Your task to perform on an android device: open app "Adobe Express: Graphic Design" (install if not already installed) and enter user name: "deliveries@gmail.com" and password: "regimentation" Image 0: 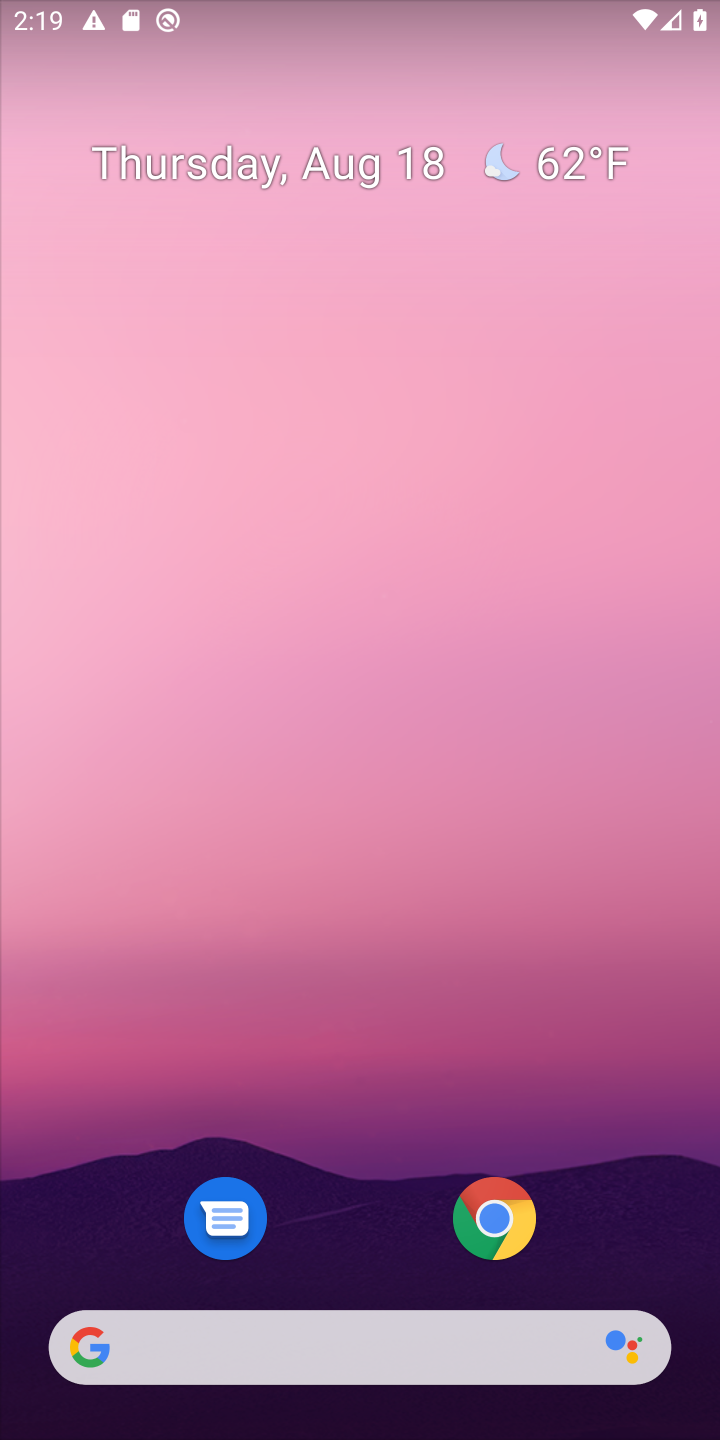
Step 0: drag from (416, 498) to (416, 333)
Your task to perform on an android device: open app "Adobe Express: Graphic Design" (install if not already installed) and enter user name: "deliveries@gmail.com" and password: "regimentation" Image 1: 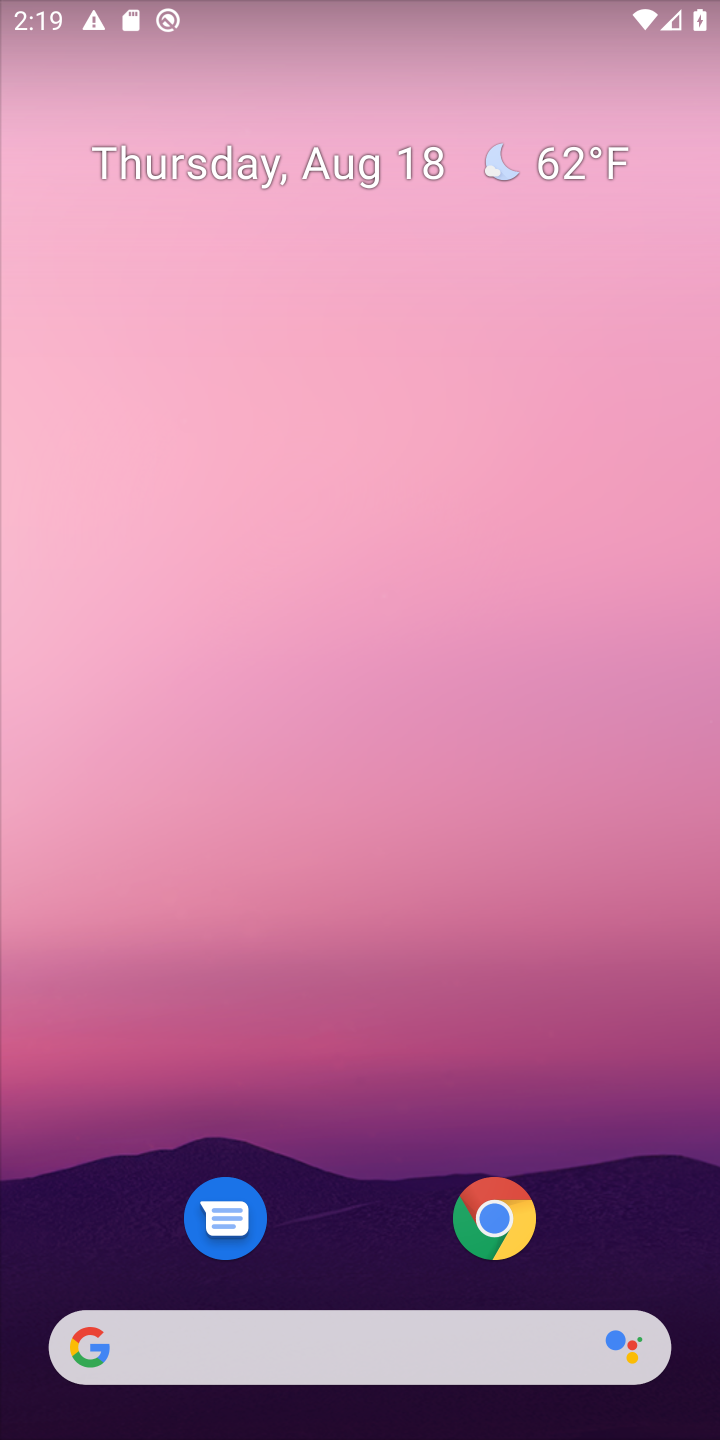
Step 1: drag from (341, 1158) to (296, 232)
Your task to perform on an android device: open app "Adobe Express: Graphic Design" (install if not already installed) and enter user name: "deliveries@gmail.com" and password: "regimentation" Image 2: 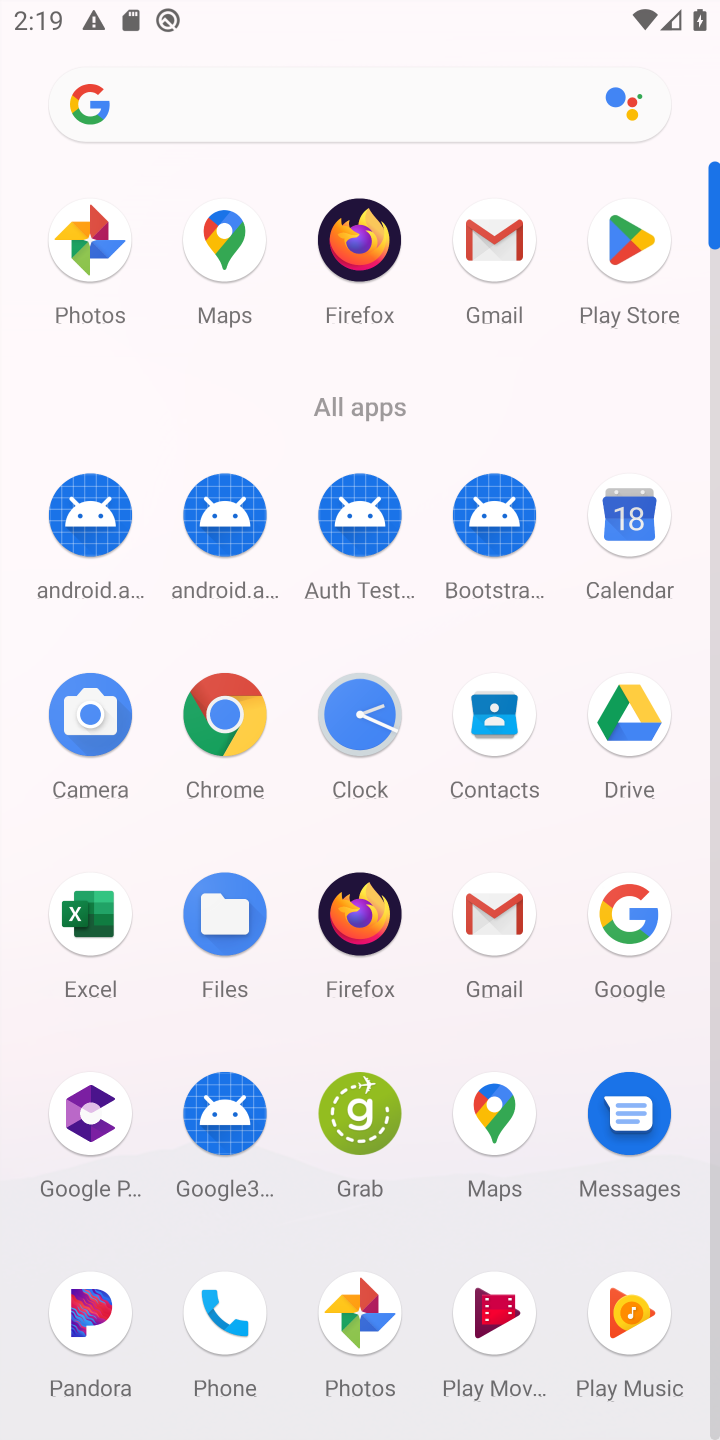
Step 2: click (619, 232)
Your task to perform on an android device: open app "Adobe Express: Graphic Design" (install if not already installed) and enter user name: "deliveries@gmail.com" and password: "regimentation" Image 3: 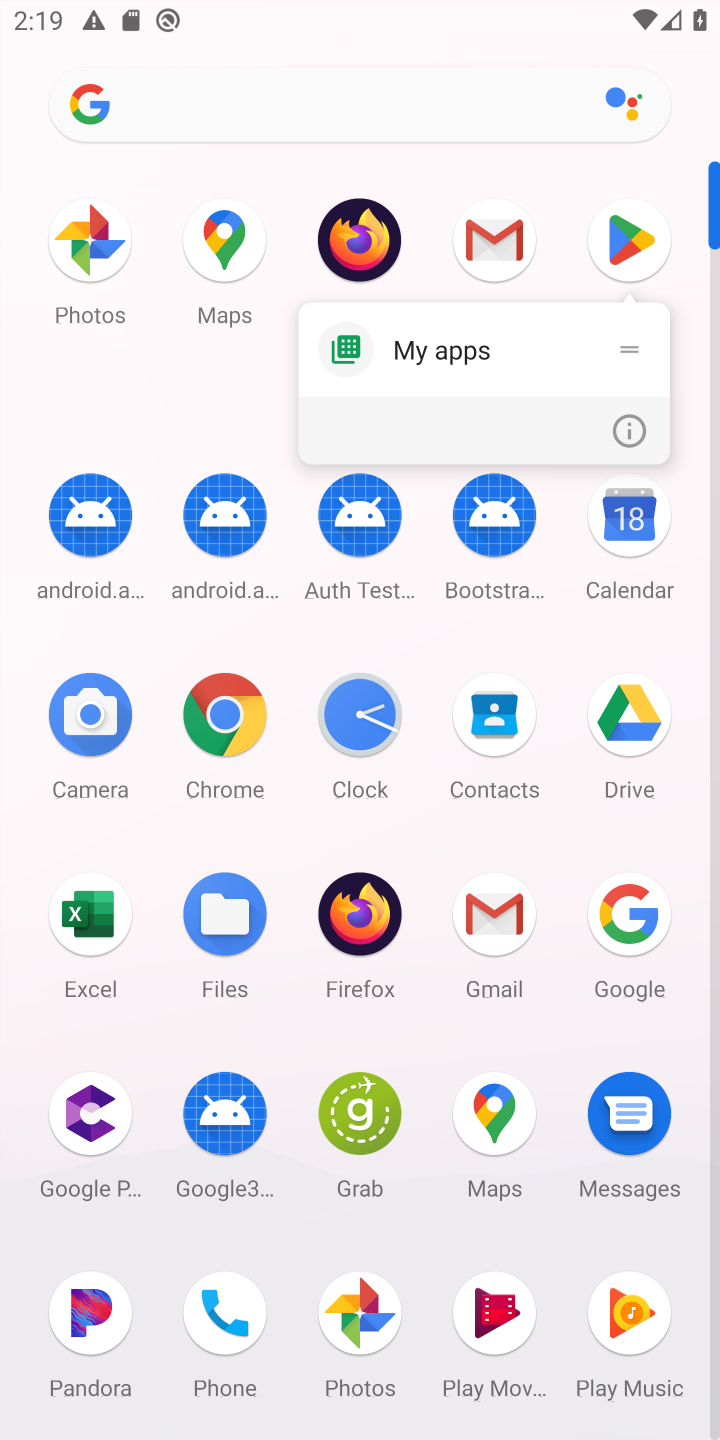
Step 3: click (619, 232)
Your task to perform on an android device: open app "Adobe Express: Graphic Design" (install if not already installed) and enter user name: "deliveries@gmail.com" and password: "regimentation" Image 4: 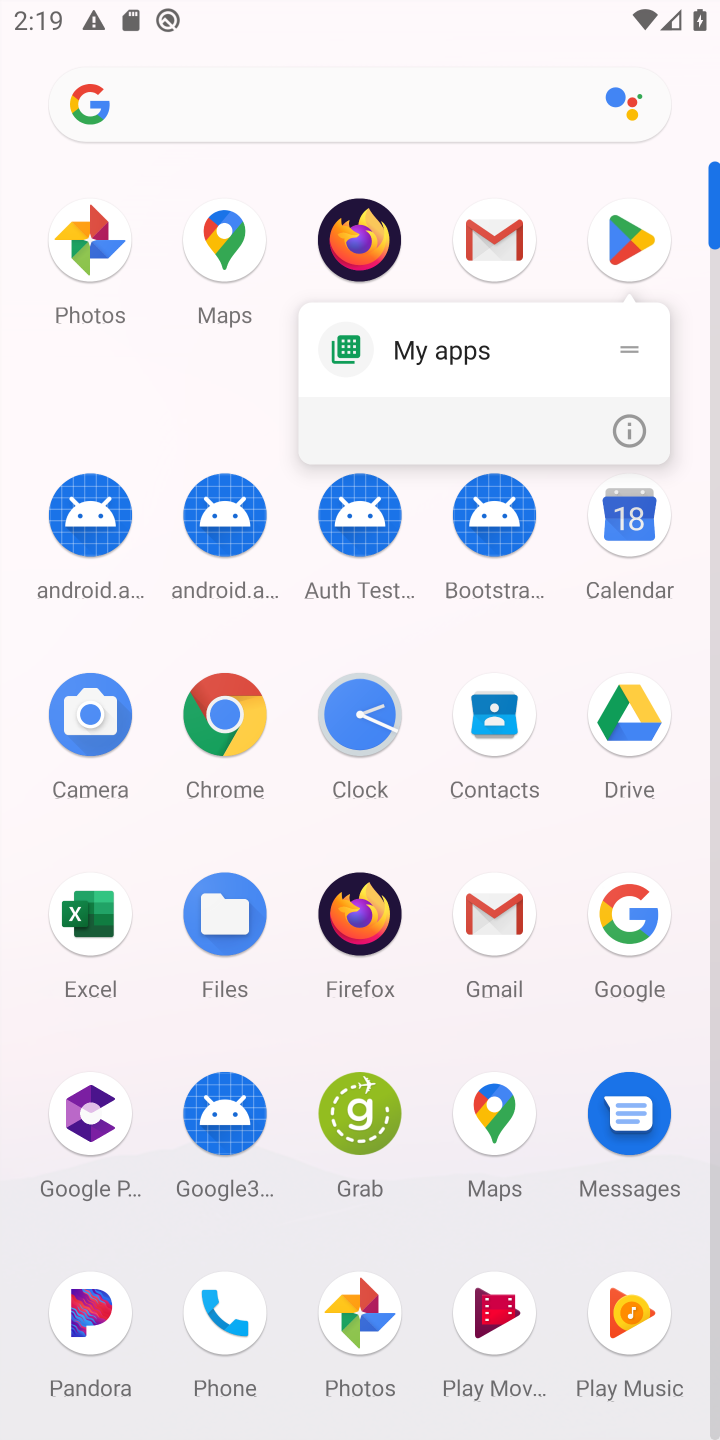
Step 4: click (619, 232)
Your task to perform on an android device: open app "Adobe Express: Graphic Design" (install if not already installed) and enter user name: "deliveries@gmail.com" and password: "regimentation" Image 5: 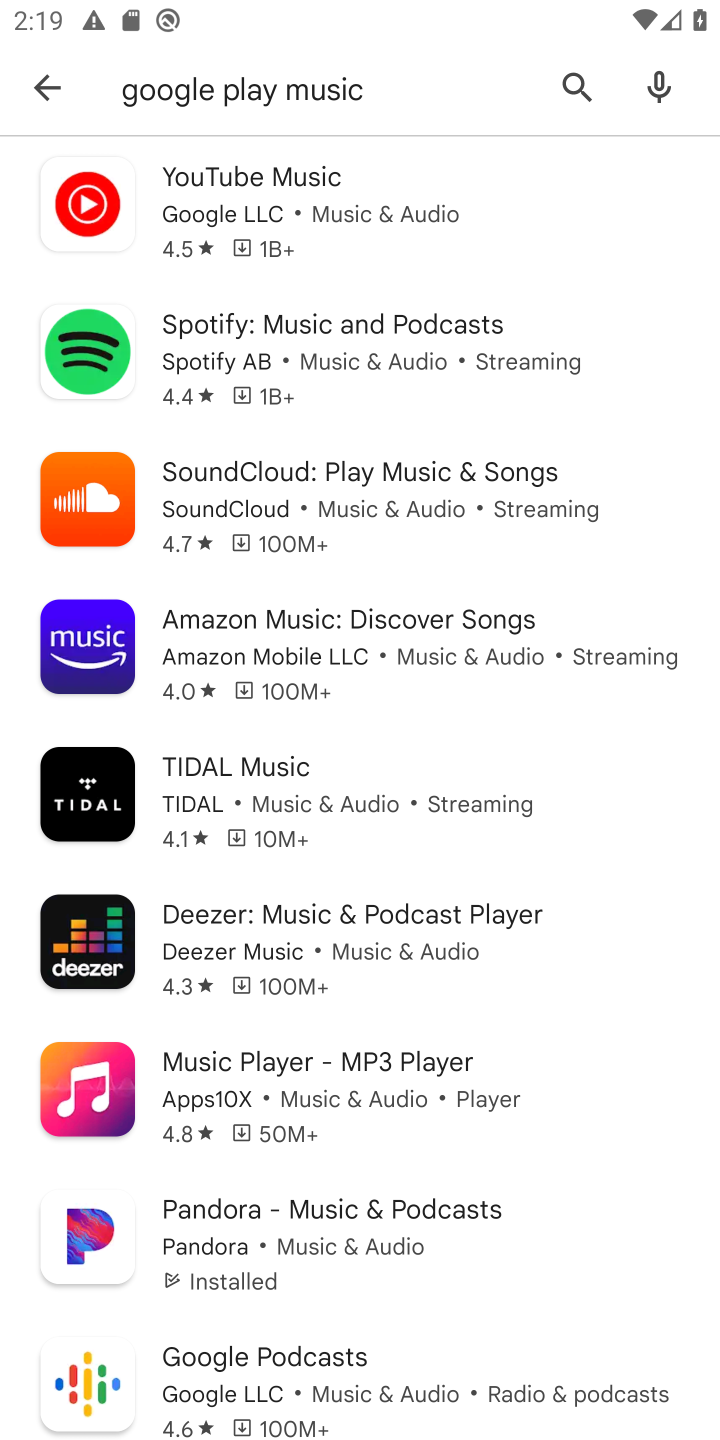
Step 5: click (576, 92)
Your task to perform on an android device: open app "Adobe Express: Graphic Design" (install if not already installed) and enter user name: "deliveries@gmail.com" and password: "regimentation" Image 6: 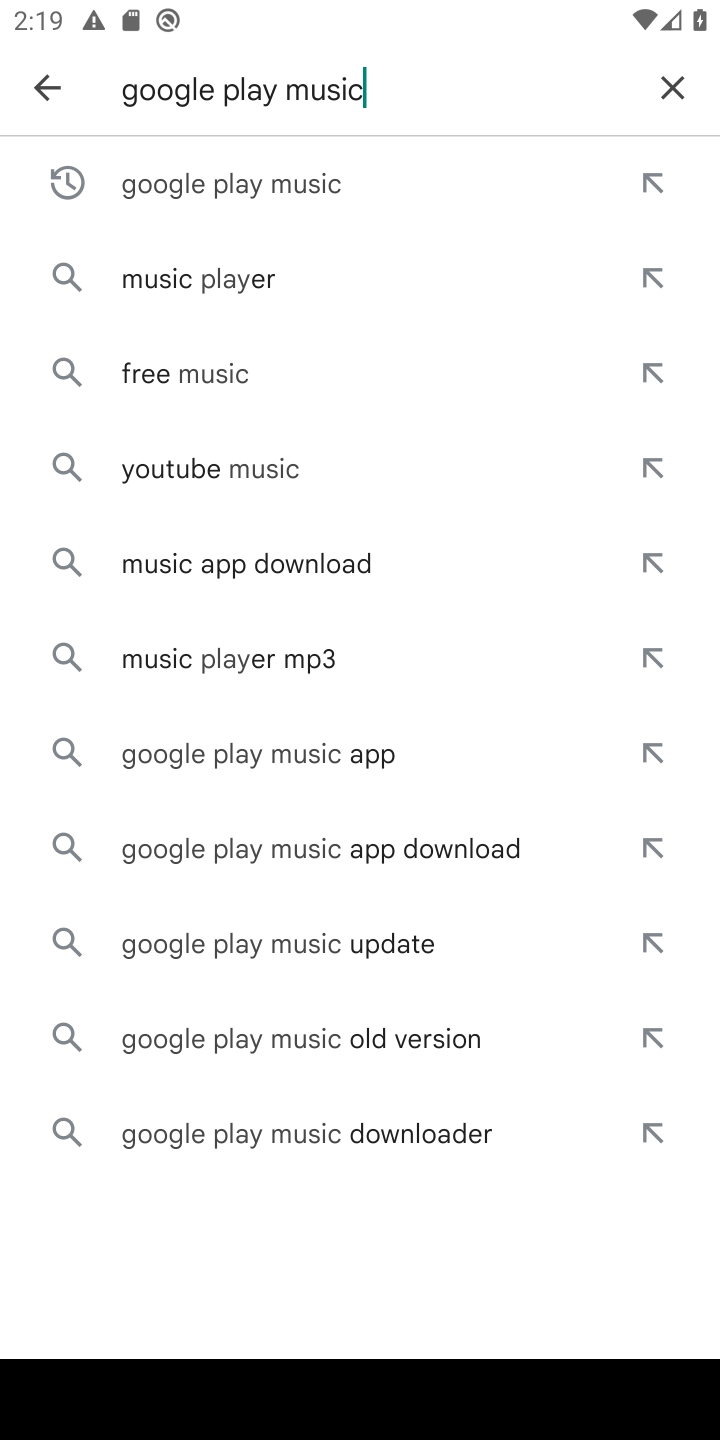
Step 6: click (661, 77)
Your task to perform on an android device: open app "Adobe Express: Graphic Design" (install if not already installed) and enter user name: "deliveries@gmail.com" and password: "regimentation" Image 7: 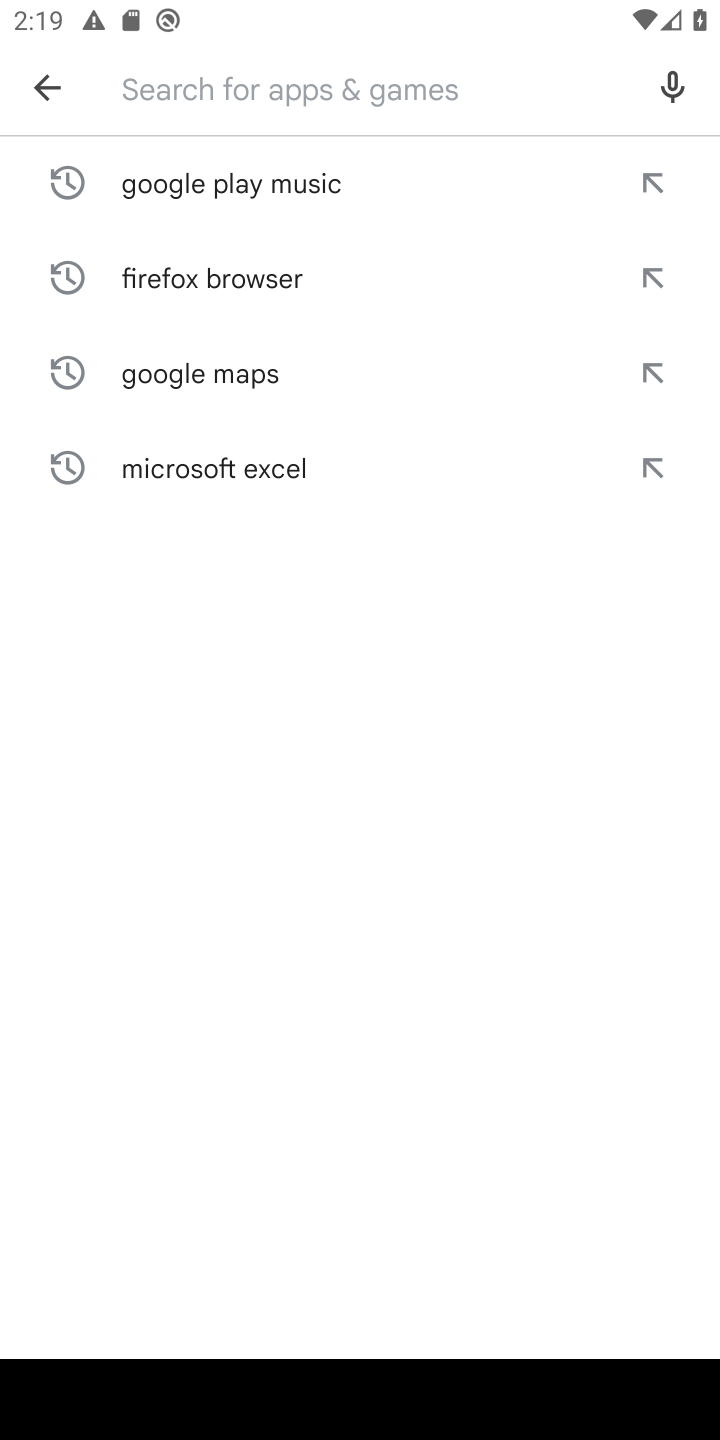
Step 7: type "Adobe Express: Graphic Design"
Your task to perform on an android device: open app "Adobe Express: Graphic Design" (install if not already installed) and enter user name: "deliveries@gmail.com" and password: "regimentation" Image 8: 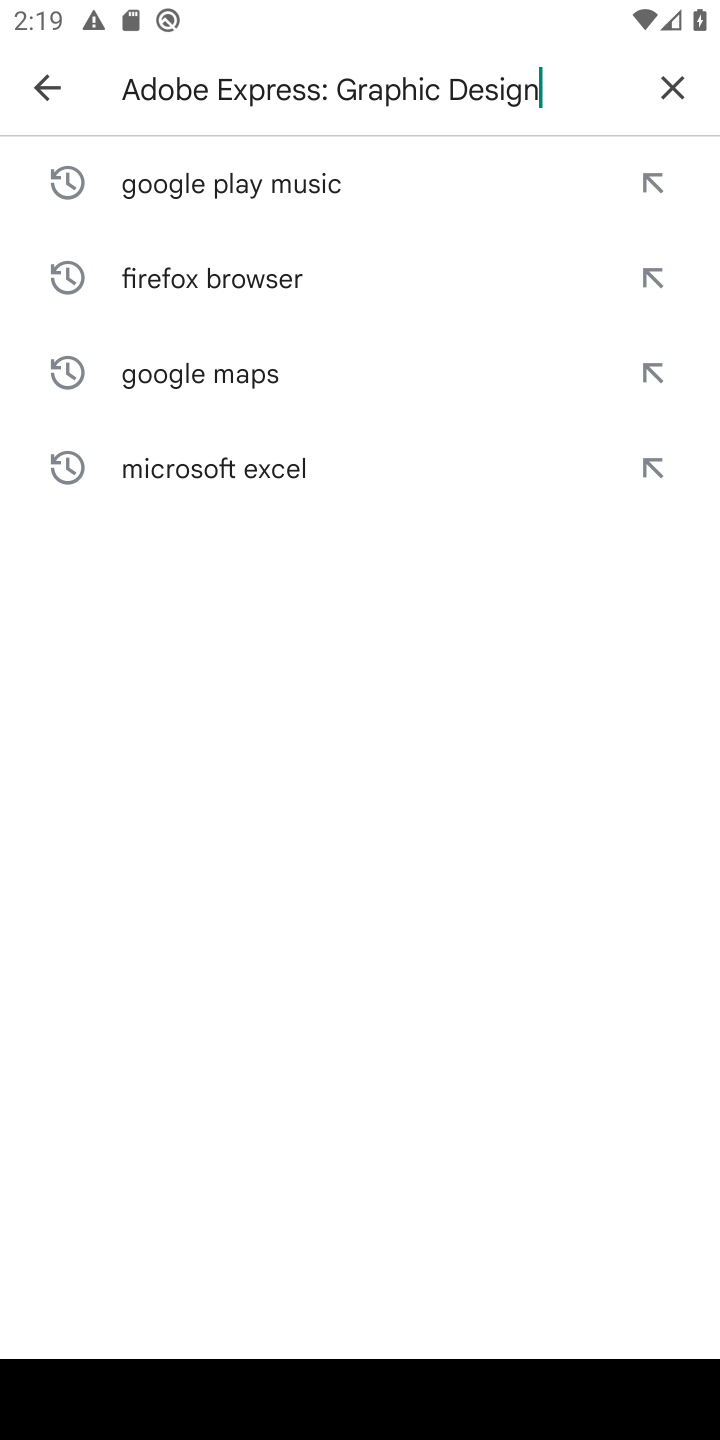
Step 8: type ""
Your task to perform on an android device: open app "Adobe Express: Graphic Design" (install if not already installed) and enter user name: "deliveries@gmail.com" and password: "regimentation" Image 9: 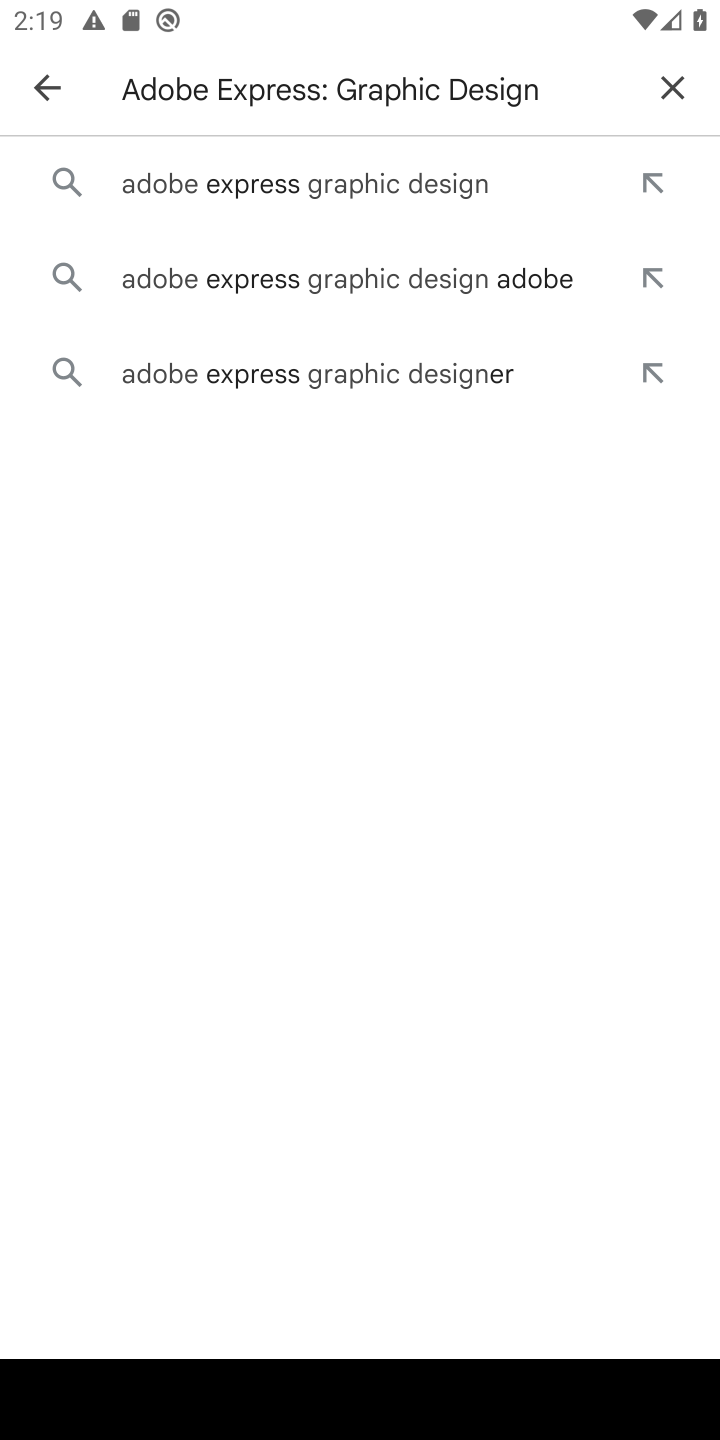
Step 9: click (255, 192)
Your task to perform on an android device: open app "Adobe Express: Graphic Design" (install if not already installed) and enter user name: "deliveries@gmail.com" and password: "regimentation" Image 10: 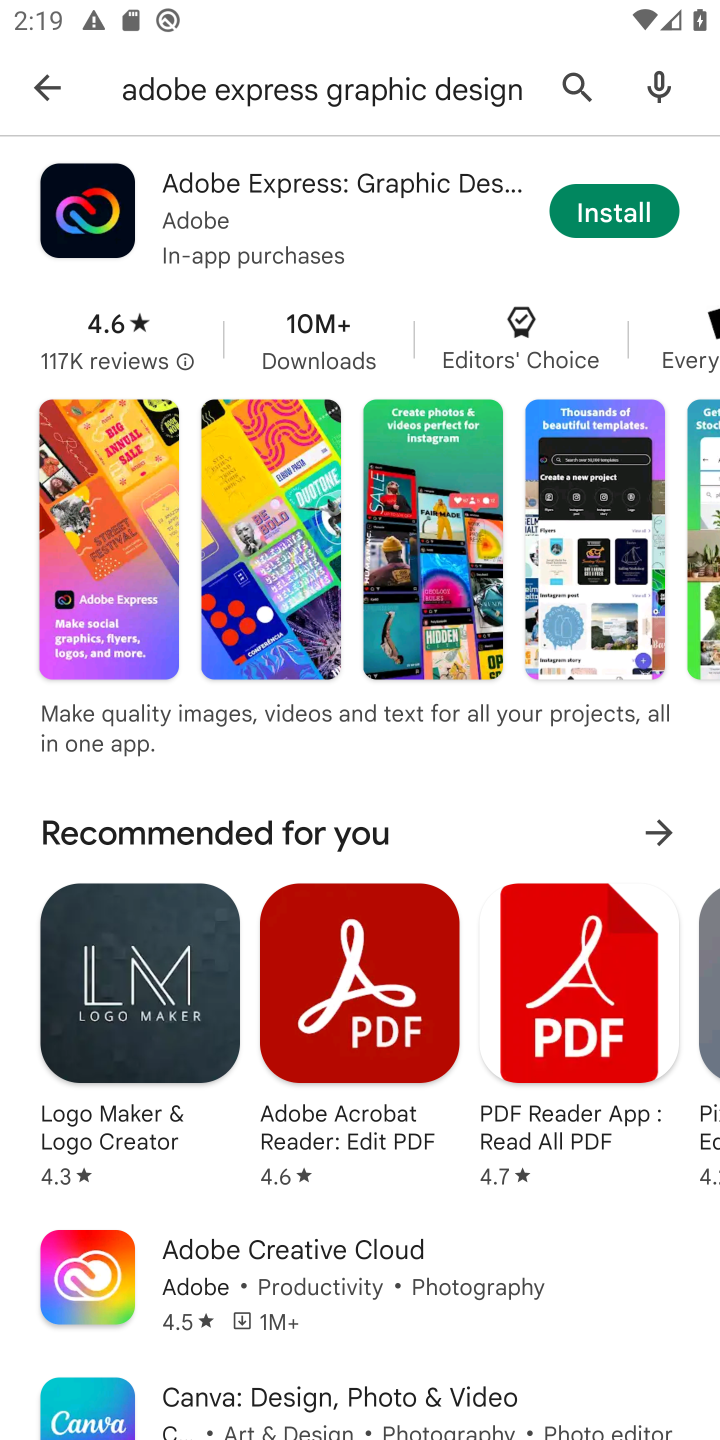
Step 10: click (590, 226)
Your task to perform on an android device: open app "Adobe Express: Graphic Design" (install if not already installed) and enter user name: "deliveries@gmail.com" and password: "regimentation" Image 11: 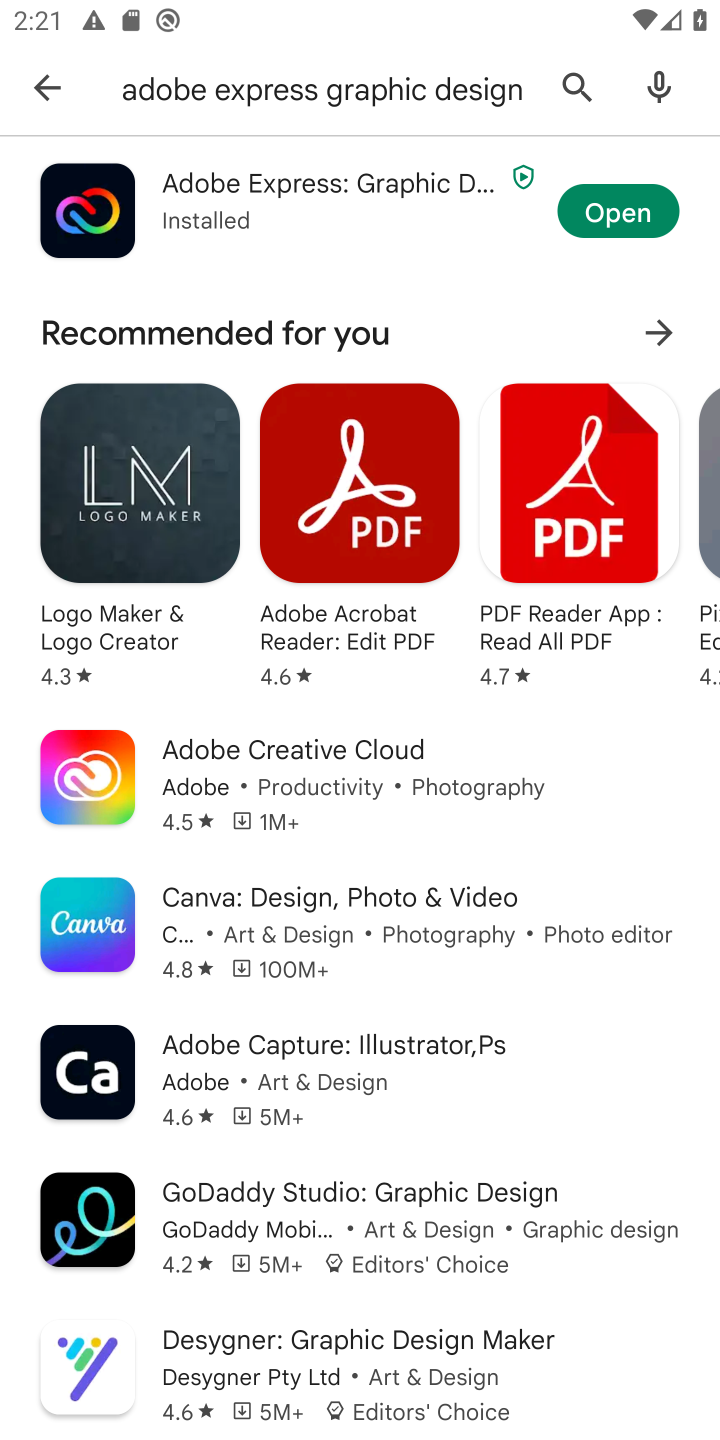
Step 11: click (633, 211)
Your task to perform on an android device: open app "Adobe Express: Graphic Design" (install if not already installed) and enter user name: "deliveries@gmail.com" and password: "regimentation" Image 12: 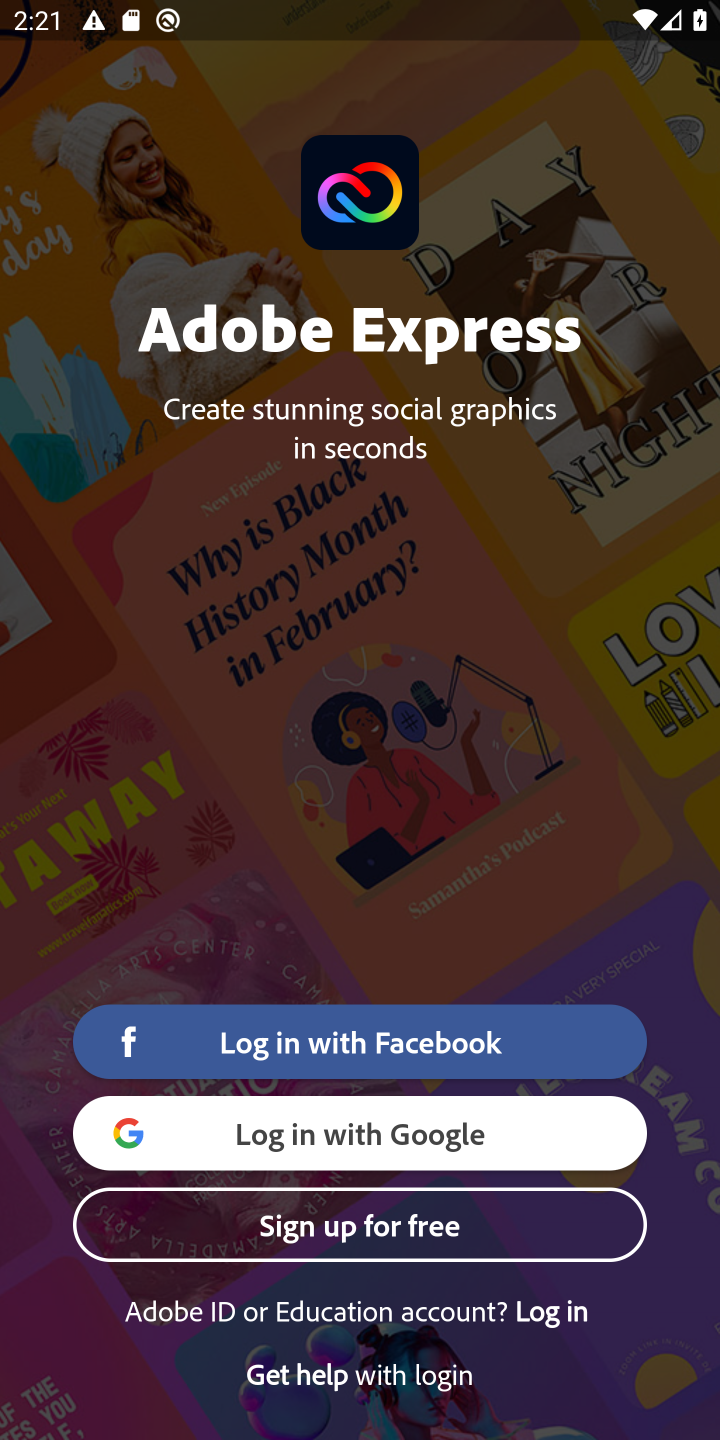
Step 12: task complete